Your task to perform on an android device: Show me productivity apps on the Play Store Image 0: 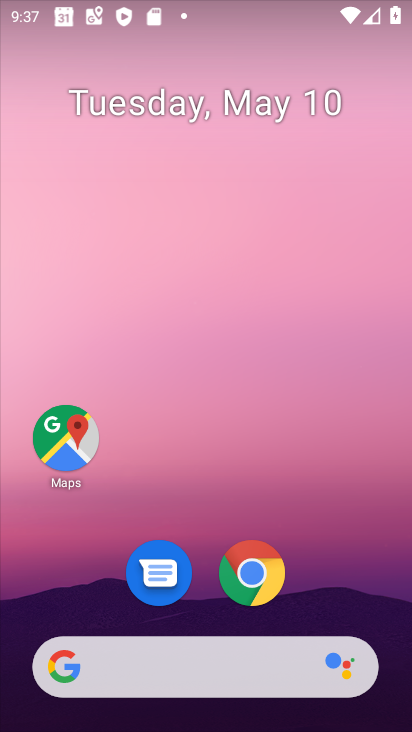
Step 0: click (356, 522)
Your task to perform on an android device: Show me productivity apps on the Play Store Image 1: 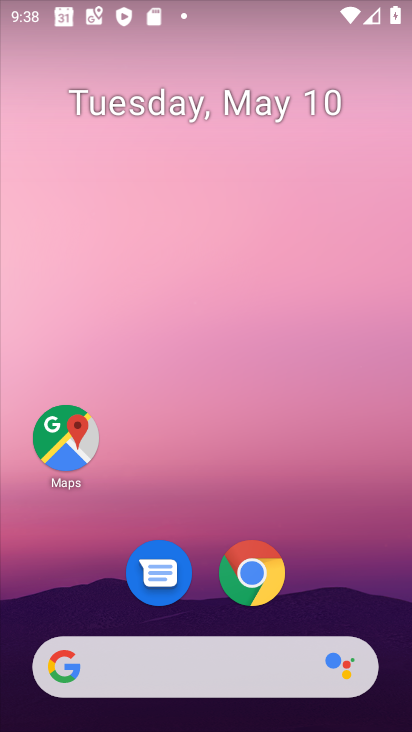
Step 1: drag from (321, 538) to (211, 23)
Your task to perform on an android device: Show me productivity apps on the Play Store Image 2: 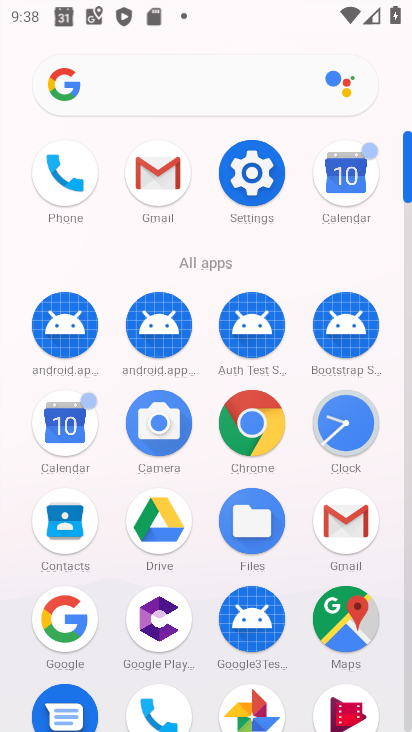
Step 2: drag from (210, 609) to (179, 244)
Your task to perform on an android device: Show me productivity apps on the Play Store Image 3: 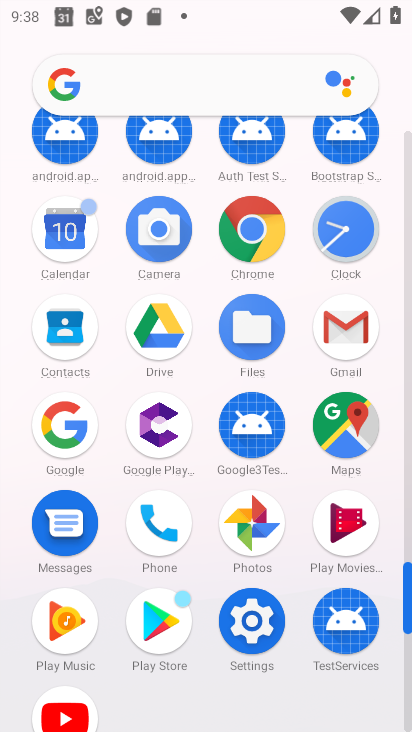
Step 3: click (168, 615)
Your task to perform on an android device: Show me productivity apps on the Play Store Image 4: 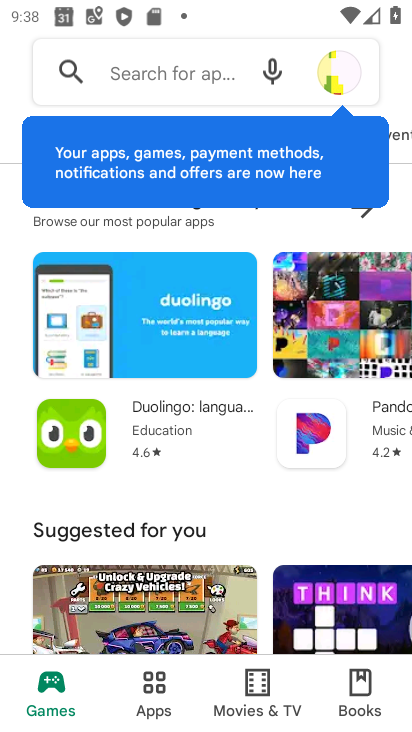
Step 4: click (151, 698)
Your task to perform on an android device: Show me productivity apps on the Play Store Image 5: 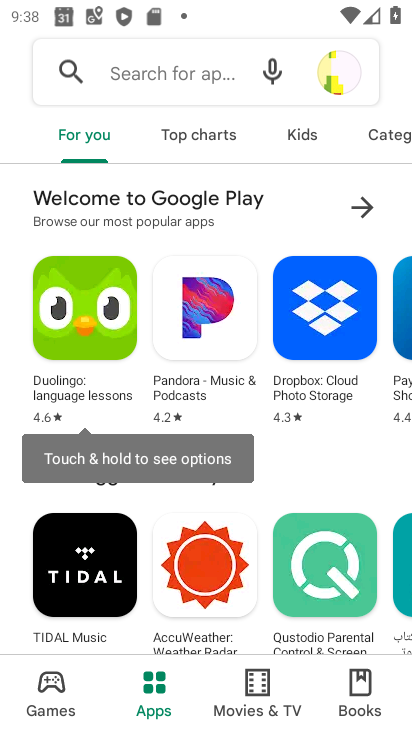
Step 5: task complete